Your task to perform on an android device: see creations saved in the google photos Image 0: 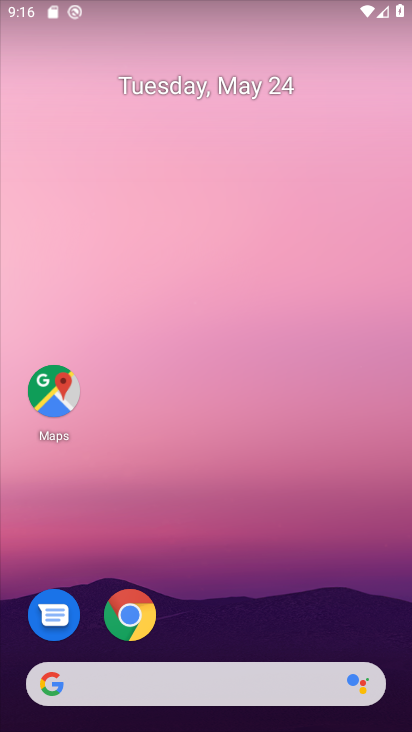
Step 0: drag from (250, 658) to (365, 102)
Your task to perform on an android device: see creations saved in the google photos Image 1: 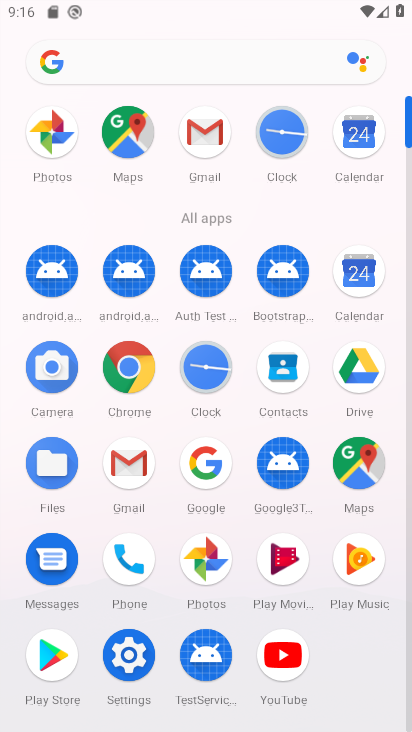
Step 1: click (208, 558)
Your task to perform on an android device: see creations saved in the google photos Image 2: 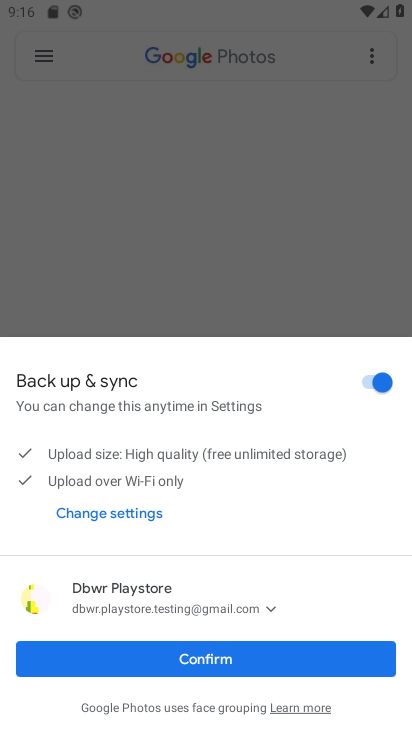
Step 2: click (265, 685)
Your task to perform on an android device: see creations saved in the google photos Image 3: 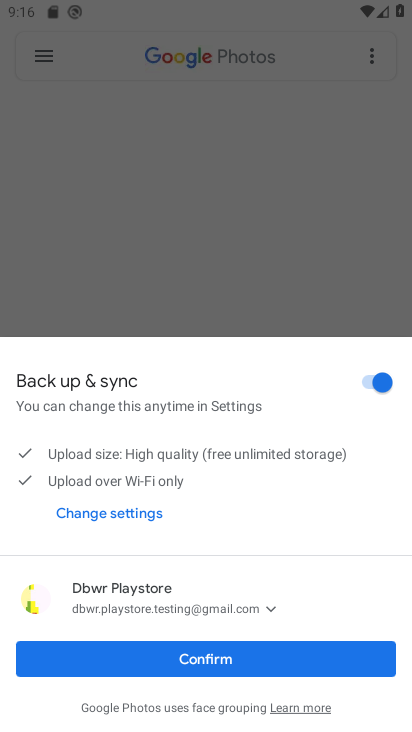
Step 3: click (262, 658)
Your task to perform on an android device: see creations saved in the google photos Image 4: 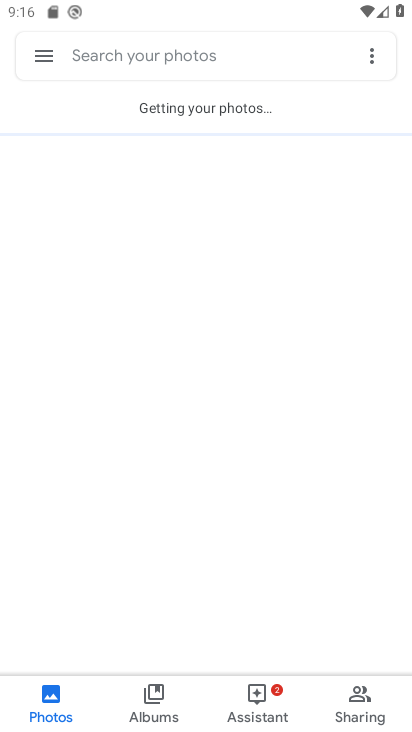
Step 4: click (188, 77)
Your task to perform on an android device: see creations saved in the google photos Image 5: 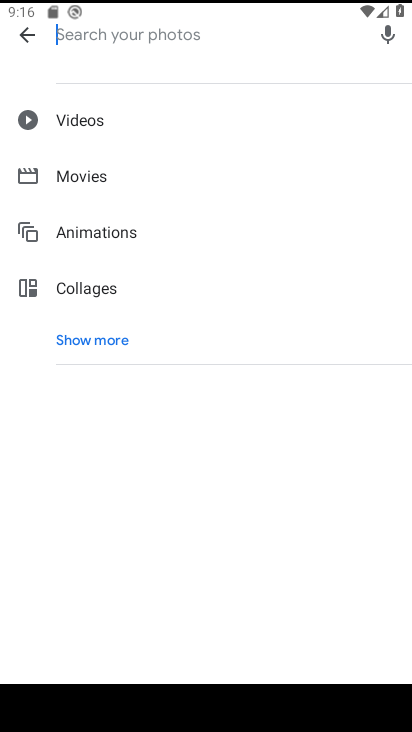
Step 5: click (86, 342)
Your task to perform on an android device: see creations saved in the google photos Image 6: 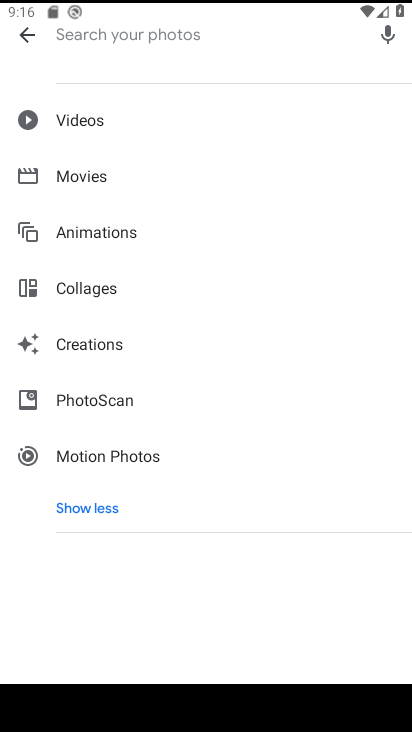
Step 6: click (119, 350)
Your task to perform on an android device: see creations saved in the google photos Image 7: 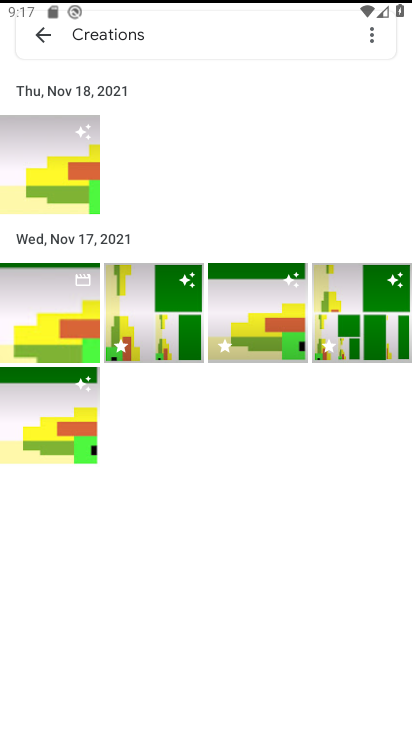
Step 7: task complete